Your task to perform on an android device: Open settings on Google Maps Image 0: 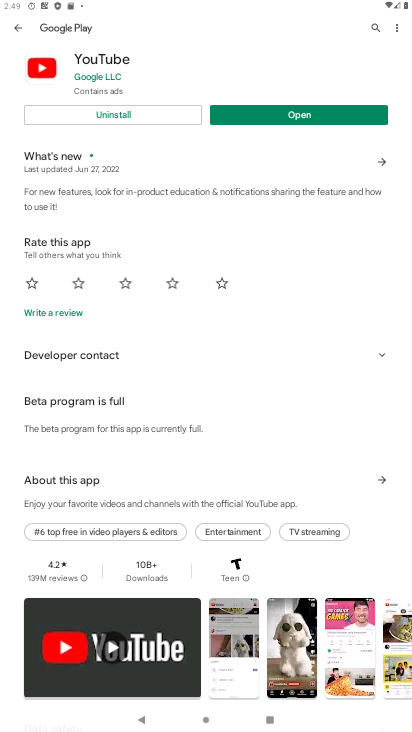
Step 0: press home button
Your task to perform on an android device: Open settings on Google Maps Image 1: 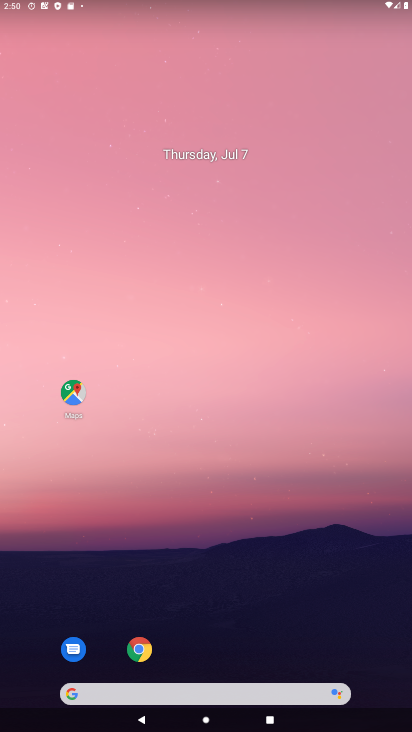
Step 1: drag from (108, 678) to (128, 127)
Your task to perform on an android device: Open settings on Google Maps Image 2: 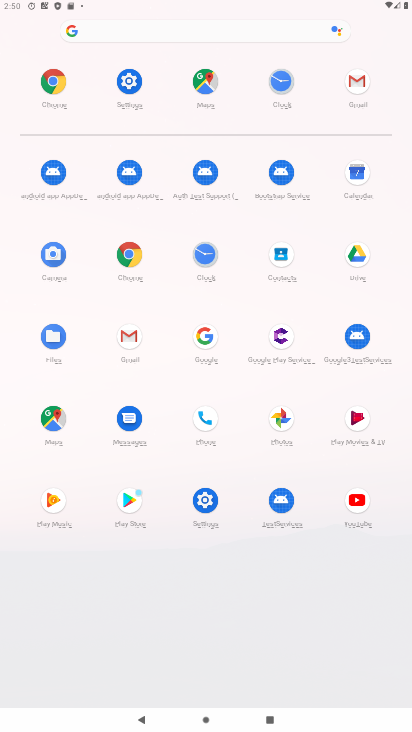
Step 2: click (43, 407)
Your task to perform on an android device: Open settings on Google Maps Image 3: 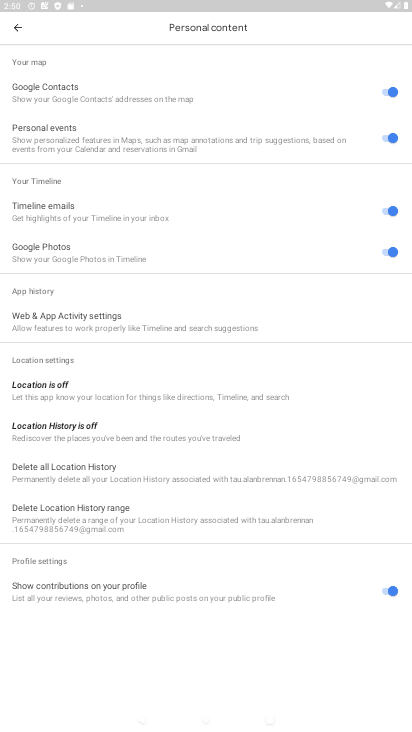
Step 3: press back button
Your task to perform on an android device: Open settings on Google Maps Image 4: 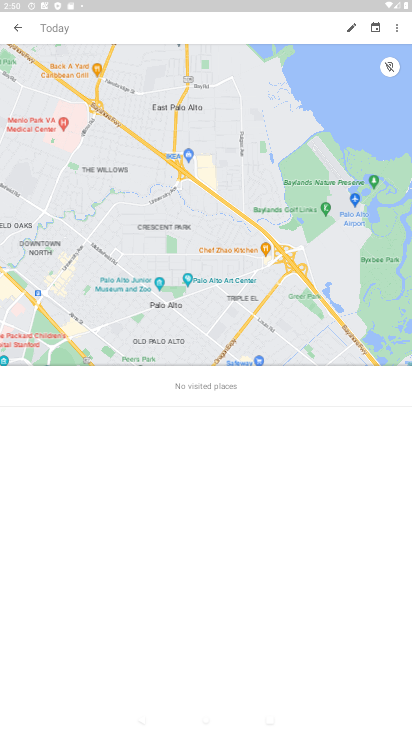
Step 4: click (398, 21)
Your task to perform on an android device: Open settings on Google Maps Image 5: 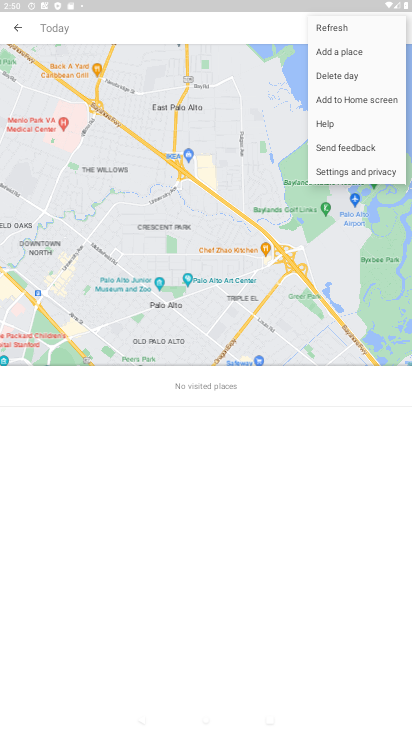
Step 5: click (360, 169)
Your task to perform on an android device: Open settings on Google Maps Image 6: 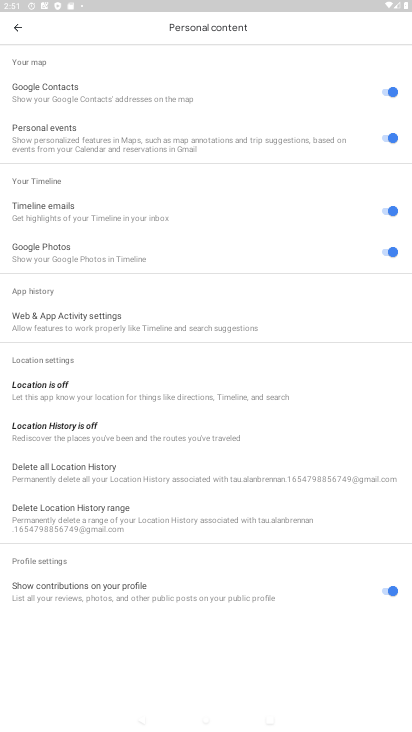
Step 6: task complete